Your task to perform on an android device: turn on javascript in the chrome app Image 0: 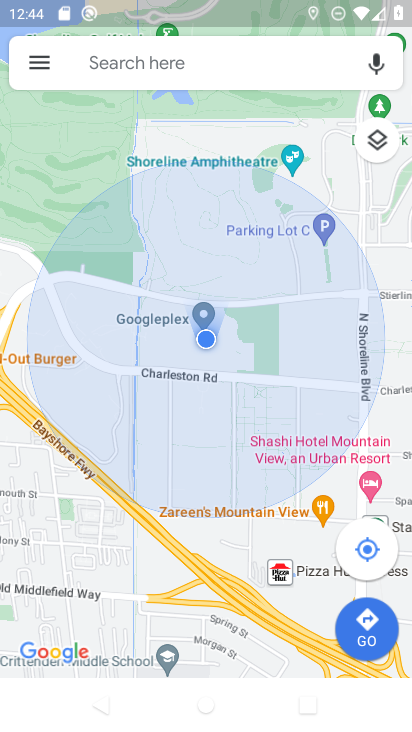
Step 0: press back button
Your task to perform on an android device: turn on javascript in the chrome app Image 1: 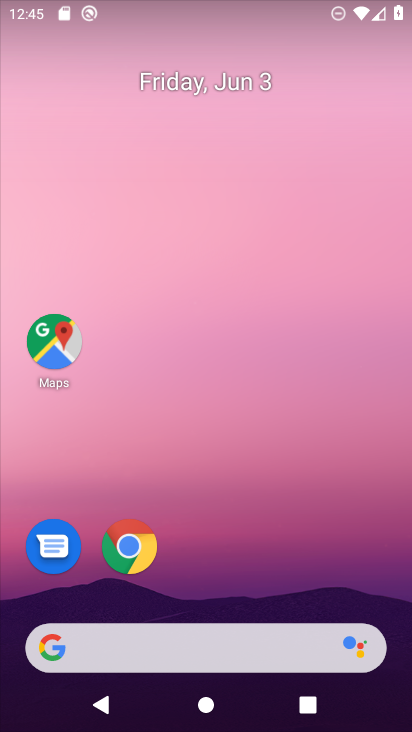
Step 1: click (129, 549)
Your task to perform on an android device: turn on javascript in the chrome app Image 2: 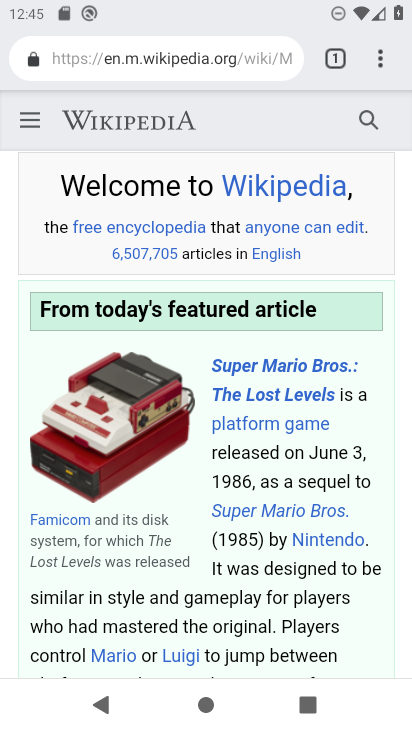
Step 2: click (379, 60)
Your task to perform on an android device: turn on javascript in the chrome app Image 3: 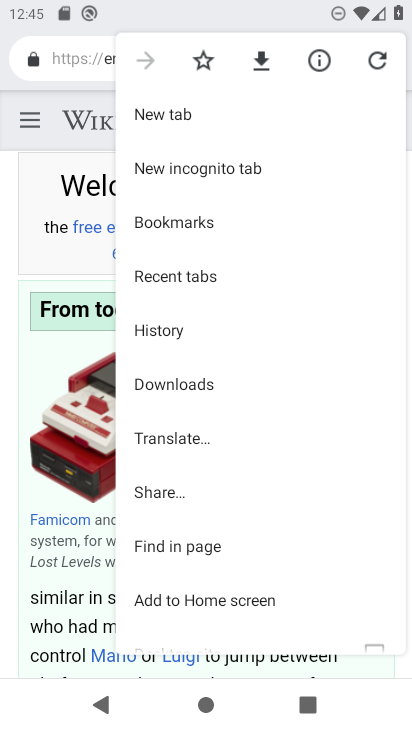
Step 3: drag from (180, 474) to (236, 376)
Your task to perform on an android device: turn on javascript in the chrome app Image 4: 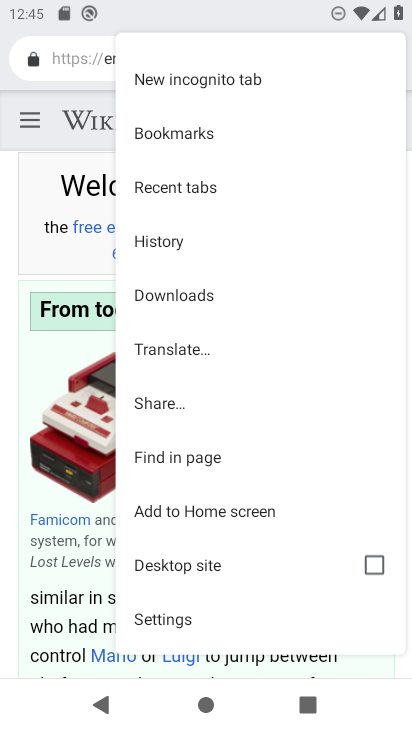
Step 4: drag from (188, 532) to (255, 431)
Your task to perform on an android device: turn on javascript in the chrome app Image 5: 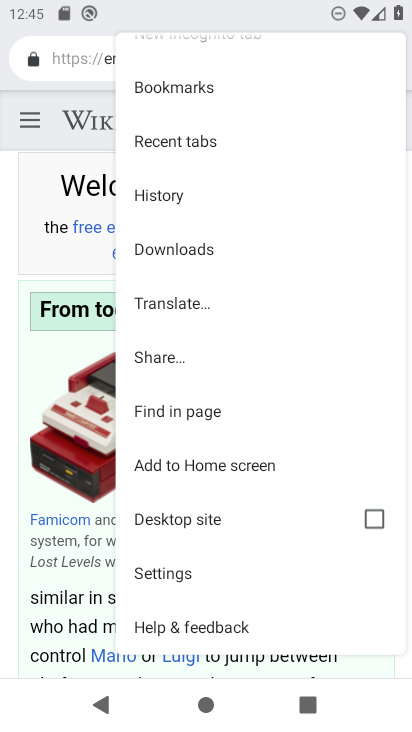
Step 5: click (181, 578)
Your task to perform on an android device: turn on javascript in the chrome app Image 6: 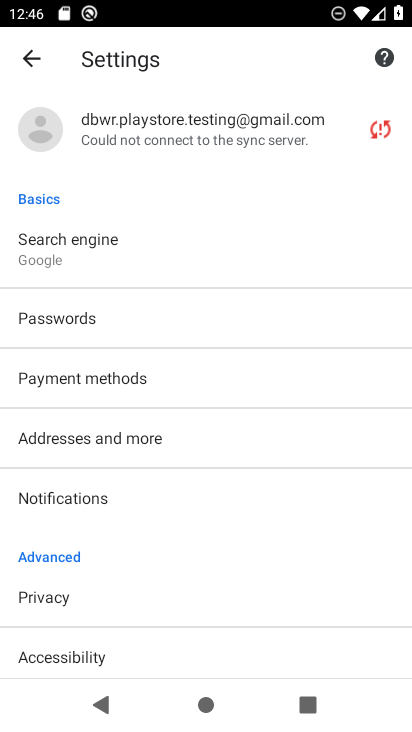
Step 6: drag from (102, 611) to (201, 485)
Your task to perform on an android device: turn on javascript in the chrome app Image 7: 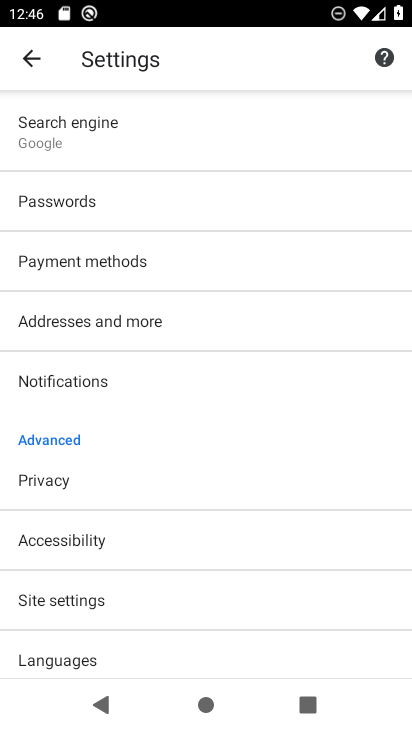
Step 7: click (93, 600)
Your task to perform on an android device: turn on javascript in the chrome app Image 8: 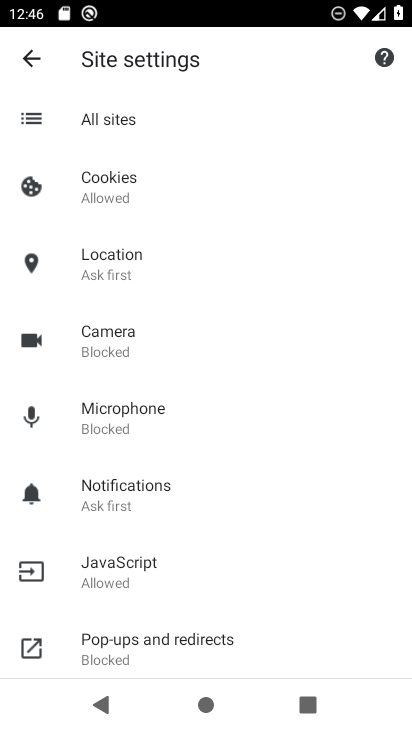
Step 8: click (113, 579)
Your task to perform on an android device: turn on javascript in the chrome app Image 9: 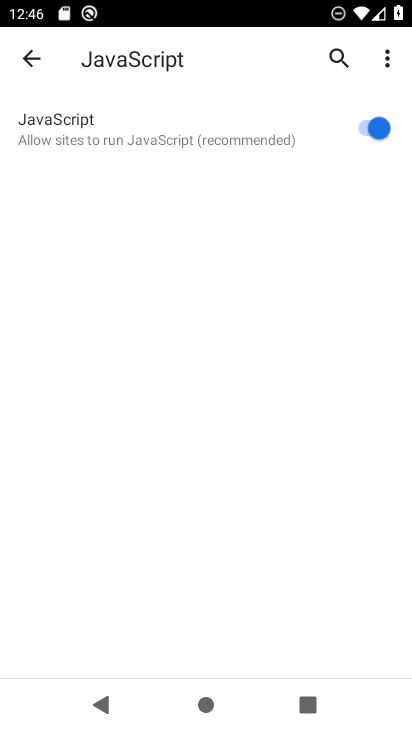
Step 9: task complete